Your task to perform on an android device: Go to battery settings Image 0: 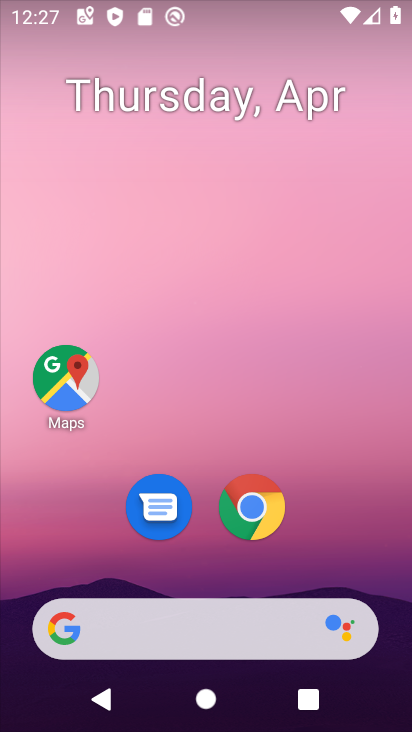
Step 0: drag from (206, 474) to (209, 23)
Your task to perform on an android device: Go to battery settings Image 1: 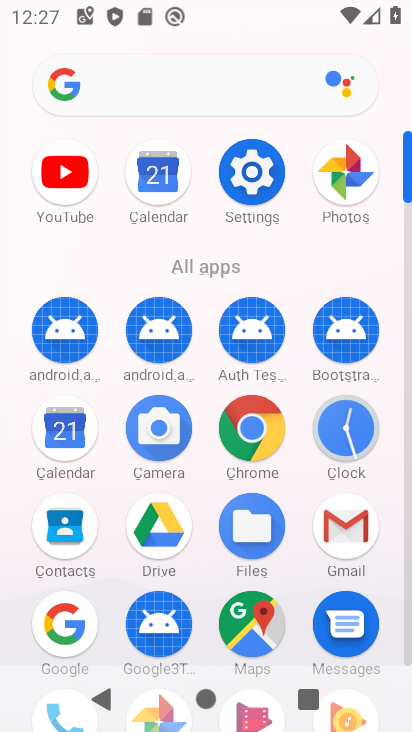
Step 1: click (251, 172)
Your task to perform on an android device: Go to battery settings Image 2: 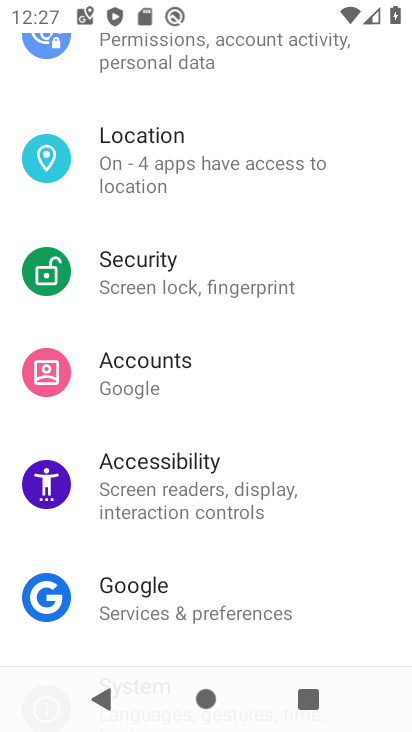
Step 2: drag from (215, 231) to (230, 300)
Your task to perform on an android device: Go to battery settings Image 3: 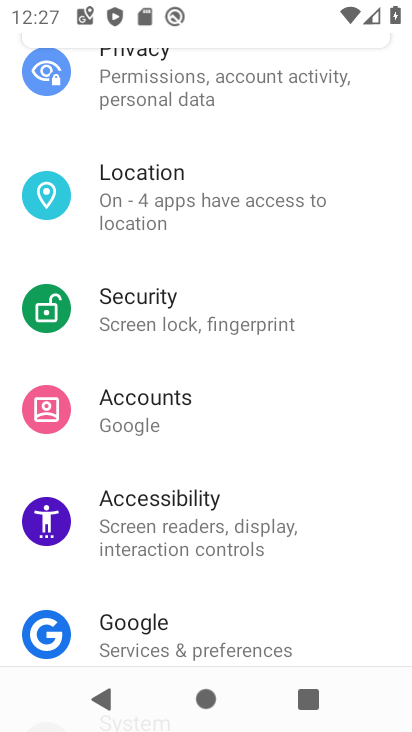
Step 3: drag from (231, 158) to (251, 265)
Your task to perform on an android device: Go to battery settings Image 4: 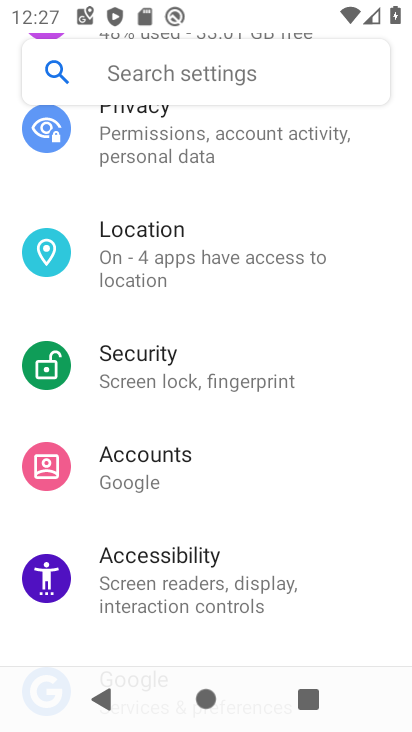
Step 4: drag from (221, 192) to (240, 272)
Your task to perform on an android device: Go to battery settings Image 5: 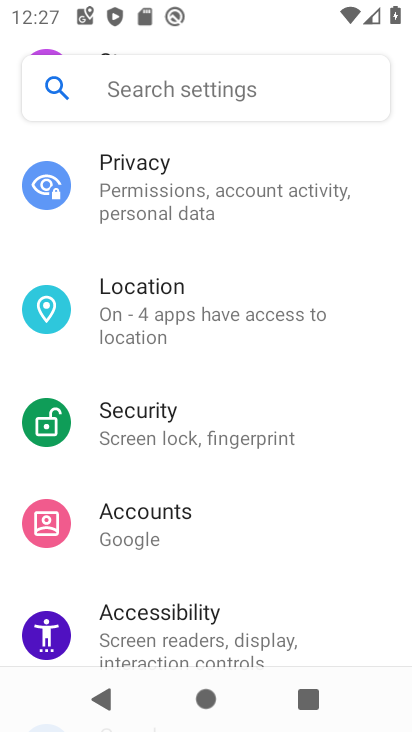
Step 5: drag from (254, 150) to (283, 289)
Your task to perform on an android device: Go to battery settings Image 6: 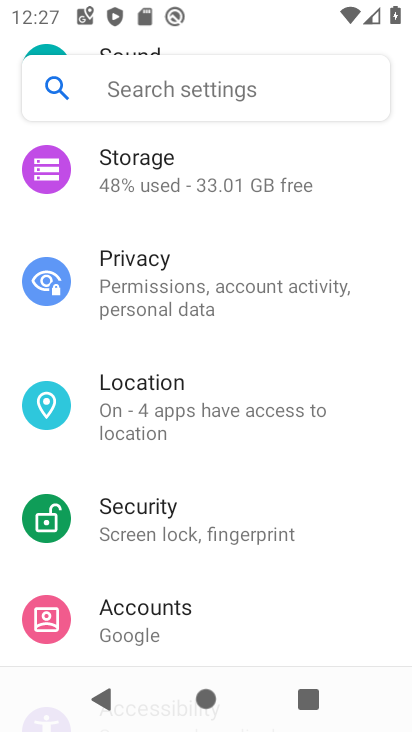
Step 6: drag from (202, 247) to (233, 342)
Your task to perform on an android device: Go to battery settings Image 7: 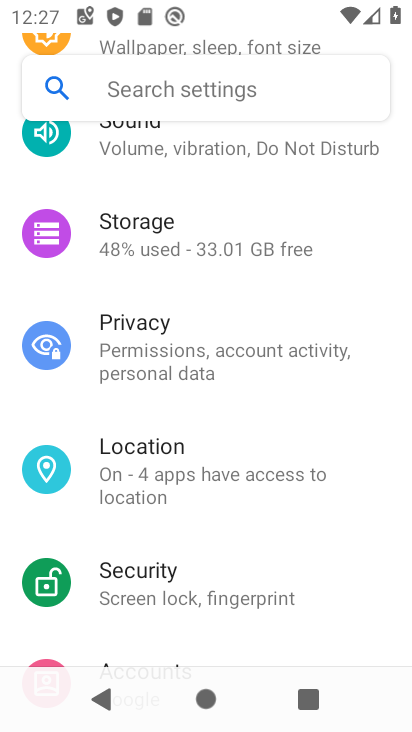
Step 7: drag from (234, 194) to (289, 338)
Your task to perform on an android device: Go to battery settings Image 8: 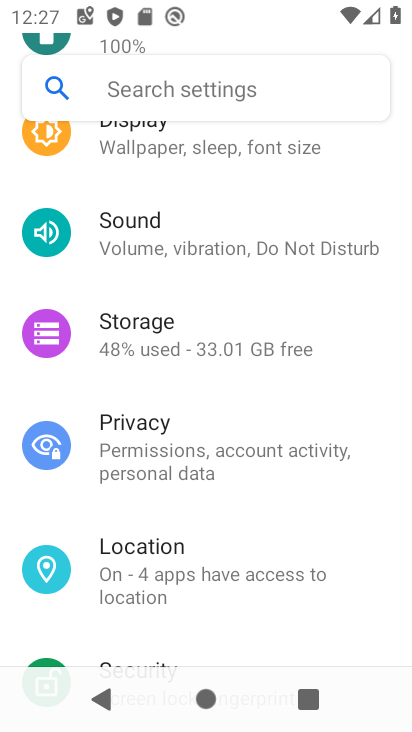
Step 8: drag from (248, 208) to (285, 317)
Your task to perform on an android device: Go to battery settings Image 9: 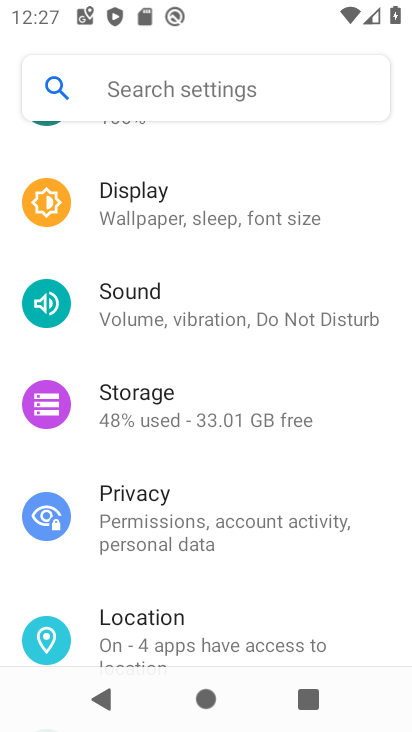
Step 9: drag from (226, 176) to (265, 303)
Your task to perform on an android device: Go to battery settings Image 10: 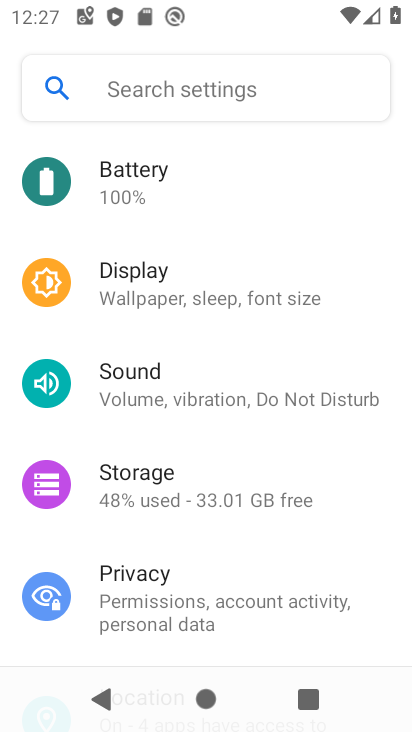
Step 10: click (147, 174)
Your task to perform on an android device: Go to battery settings Image 11: 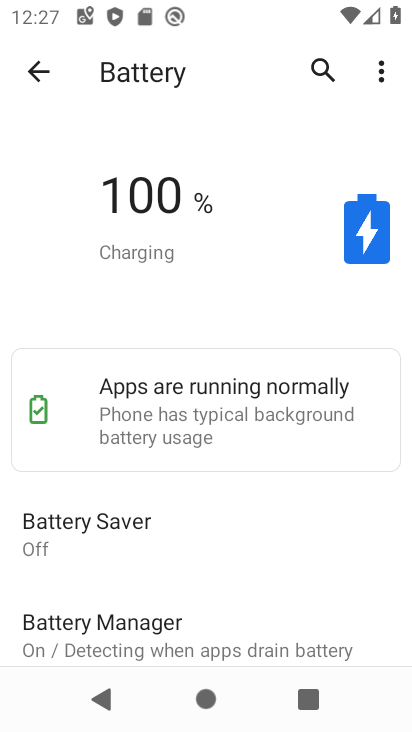
Step 11: task complete